Your task to perform on an android device: toggle notifications settings in the gmail app Image 0: 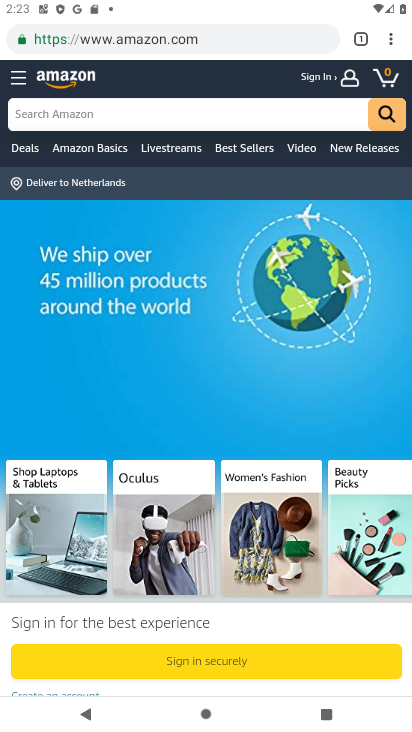
Step 0: press home button
Your task to perform on an android device: toggle notifications settings in the gmail app Image 1: 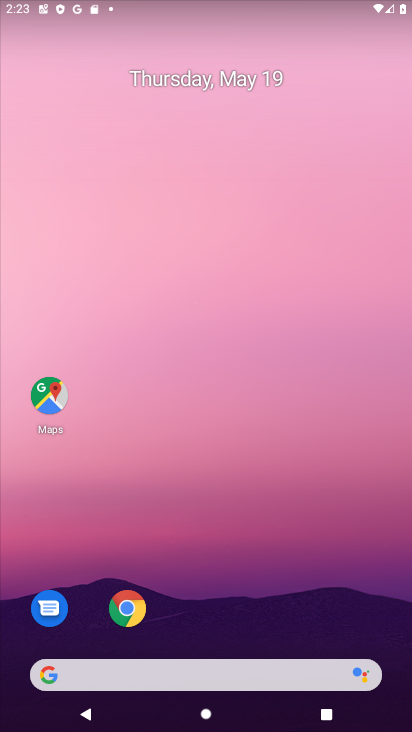
Step 1: drag from (262, 609) to (199, 77)
Your task to perform on an android device: toggle notifications settings in the gmail app Image 2: 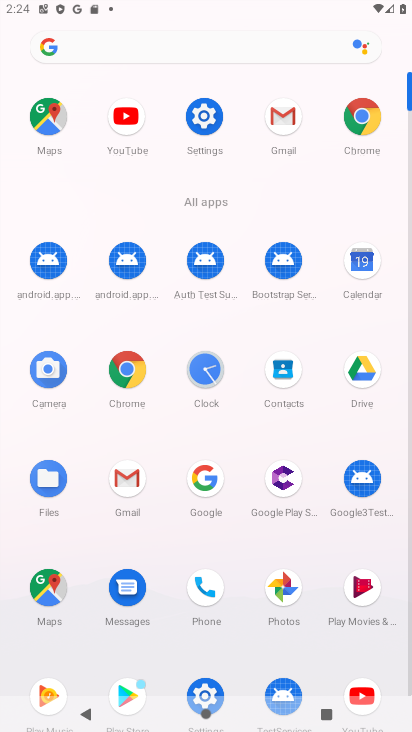
Step 2: click (286, 120)
Your task to perform on an android device: toggle notifications settings in the gmail app Image 3: 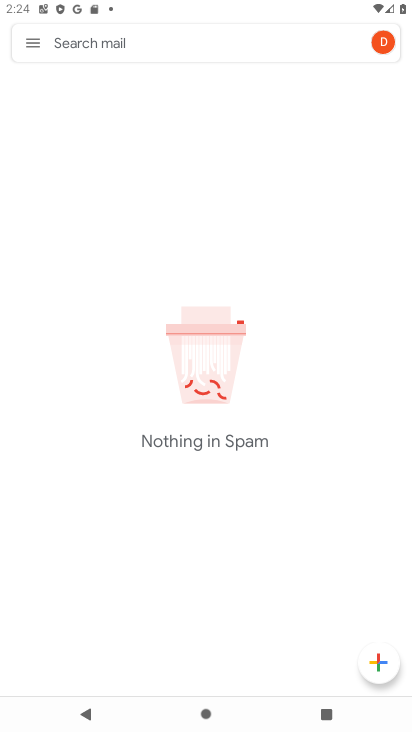
Step 3: click (37, 46)
Your task to perform on an android device: toggle notifications settings in the gmail app Image 4: 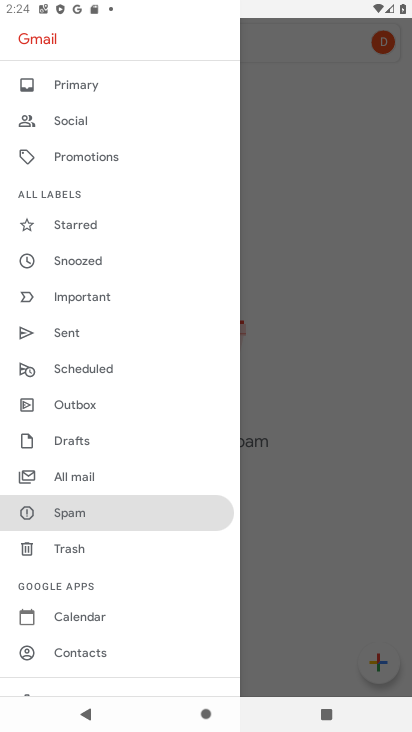
Step 4: drag from (117, 608) to (130, 147)
Your task to perform on an android device: toggle notifications settings in the gmail app Image 5: 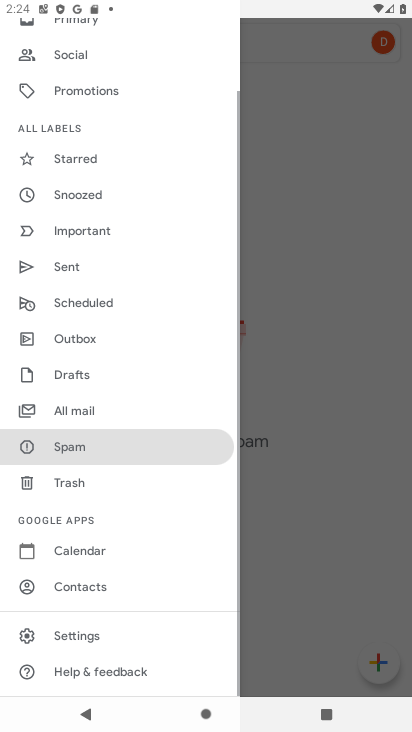
Step 5: click (118, 633)
Your task to perform on an android device: toggle notifications settings in the gmail app Image 6: 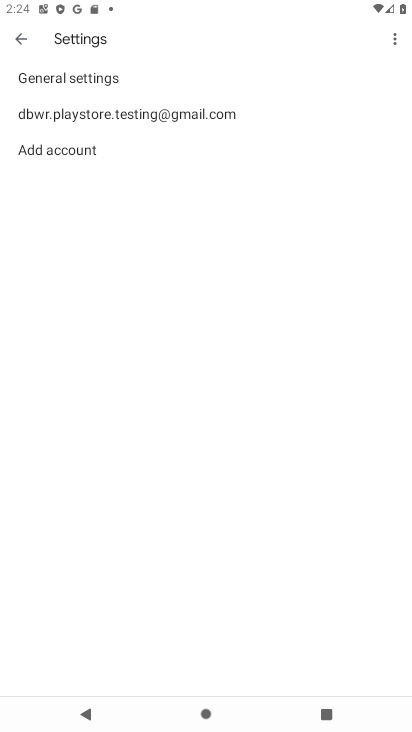
Step 6: click (157, 123)
Your task to perform on an android device: toggle notifications settings in the gmail app Image 7: 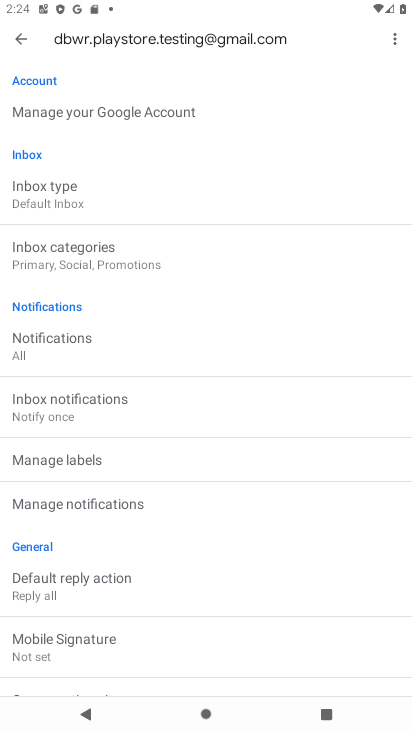
Step 7: click (170, 509)
Your task to perform on an android device: toggle notifications settings in the gmail app Image 8: 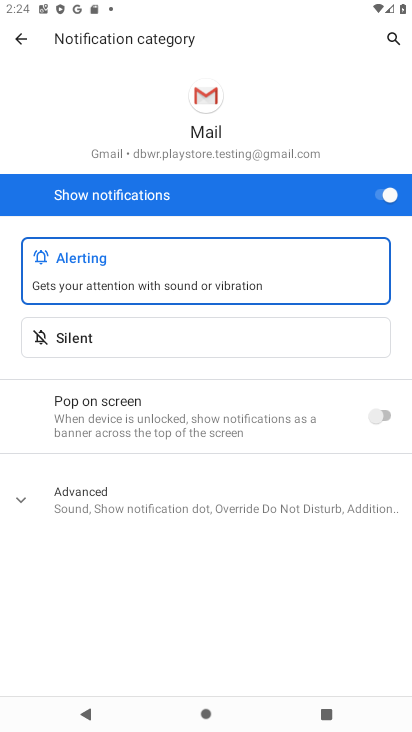
Step 8: click (372, 342)
Your task to perform on an android device: toggle notifications settings in the gmail app Image 9: 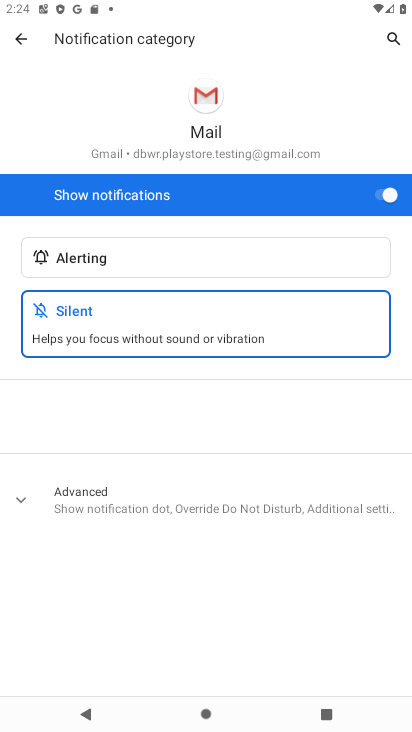
Step 9: click (387, 417)
Your task to perform on an android device: toggle notifications settings in the gmail app Image 10: 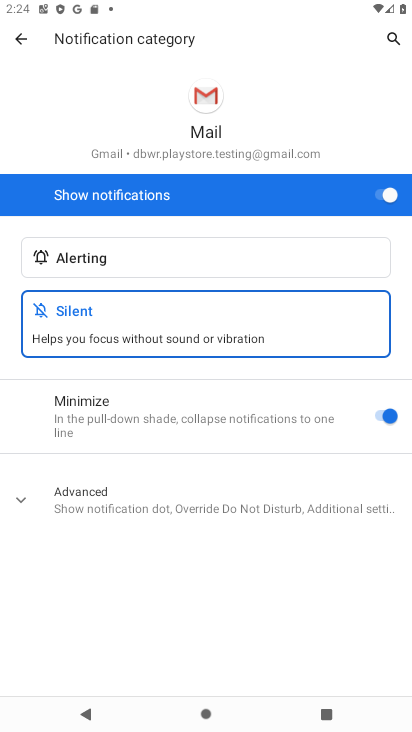
Step 10: task complete